Your task to perform on an android device: turn pop-ups on in chrome Image 0: 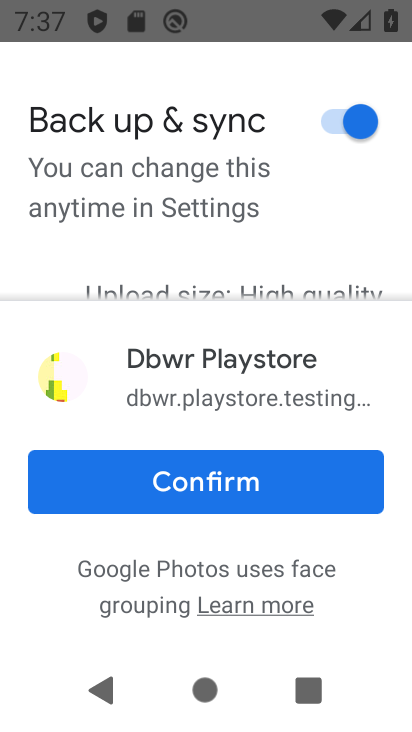
Step 0: press home button
Your task to perform on an android device: turn pop-ups on in chrome Image 1: 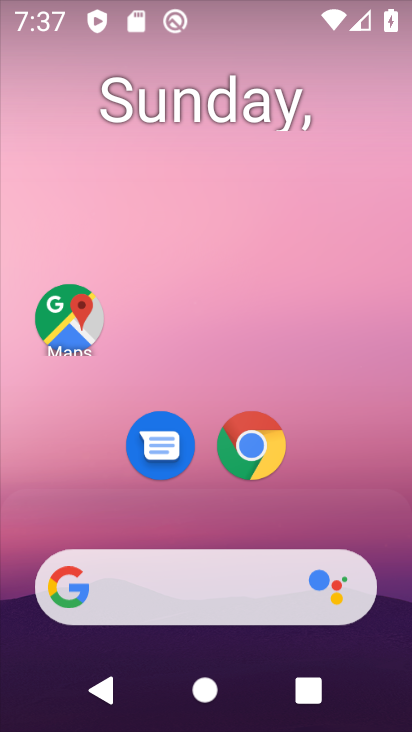
Step 1: click (257, 450)
Your task to perform on an android device: turn pop-ups on in chrome Image 2: 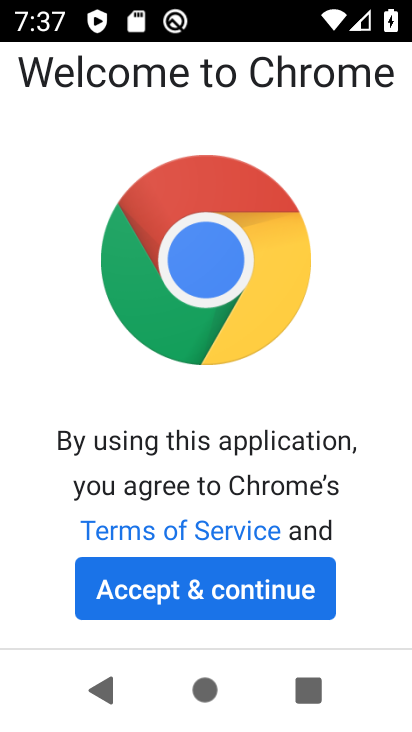
Step 2: click (259, 590)
Your task to perform on an android device: turn pop-ups on in chrome Image 3: 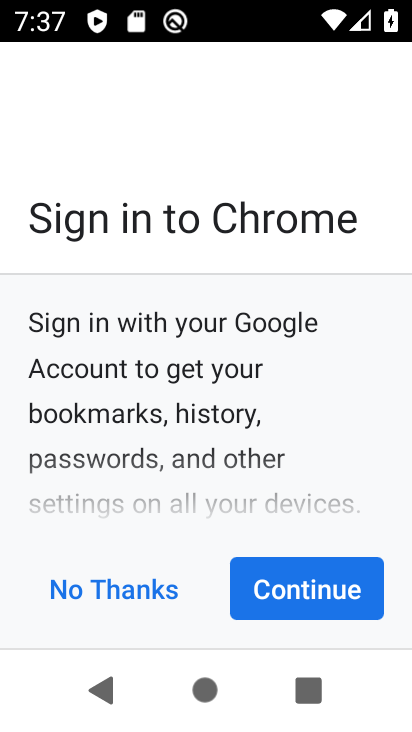
Step 3: click (282, 594)
Your task to perform on an android device: turn pop-ups on in chrome Image 4: 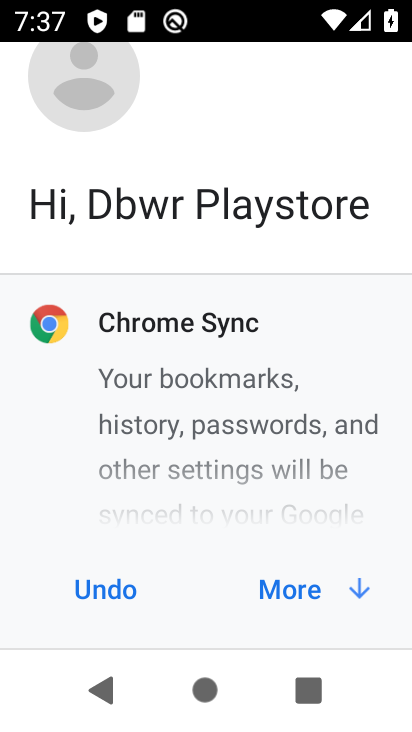
Step 4: click (300, 589)
Your task to perform on an android device: turn pop-ups on in chrome Image 5: 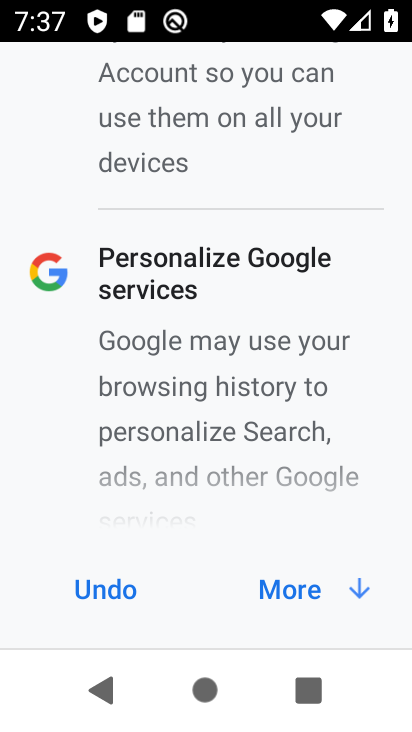
Step 5: click (300, 592)
Your task to perform on an android device: turn pop-ups on in chrome Image 6: 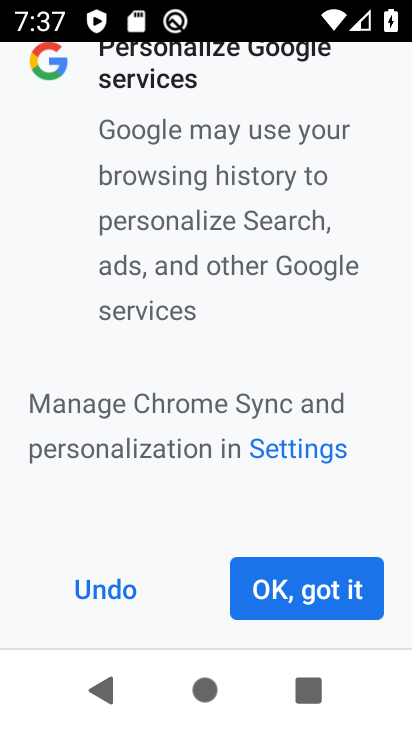
Step 6: click (300, 588)
Your task to perform on an android device: turn pop-ups on in chrome Image 7: 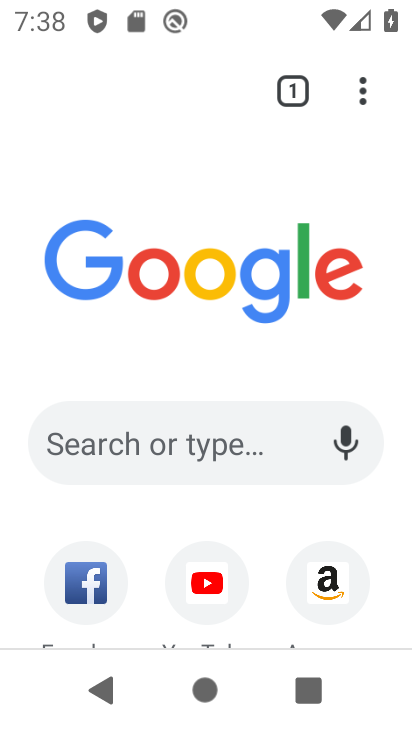
Step 7: click (369, 98)
Your task to perform on an android device: turn pop-ups on in chrome Image 8: 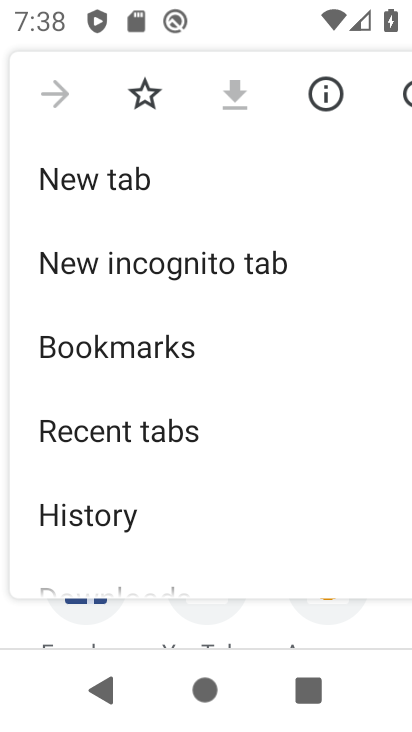
Step 8: drag from (209, 280) to (209, 178)
Your task to perform on an android device: turn pop-ups on in chrome Image 9: 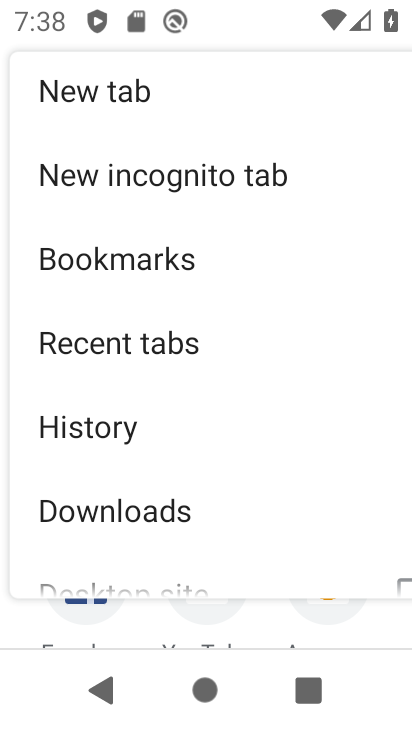
Step 9: drag from (169, 384) to (176, 112)
Your task to perform on an android device: turn pop-ups on in chrome Image 10: 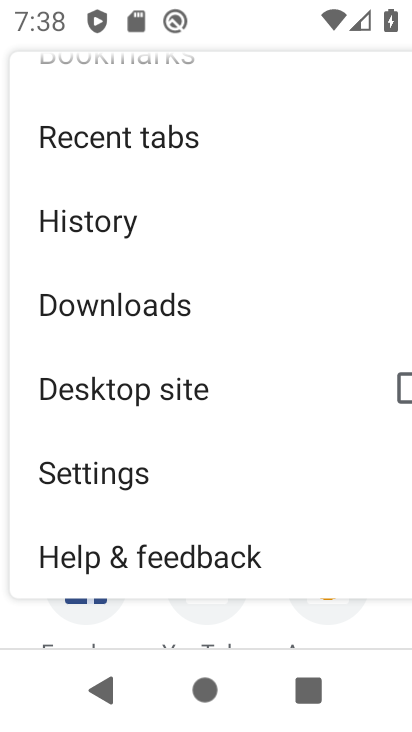
Step 10: click (127, 472)
Your task to perform on an android device: turn pop-ups on in chrome Image 11: 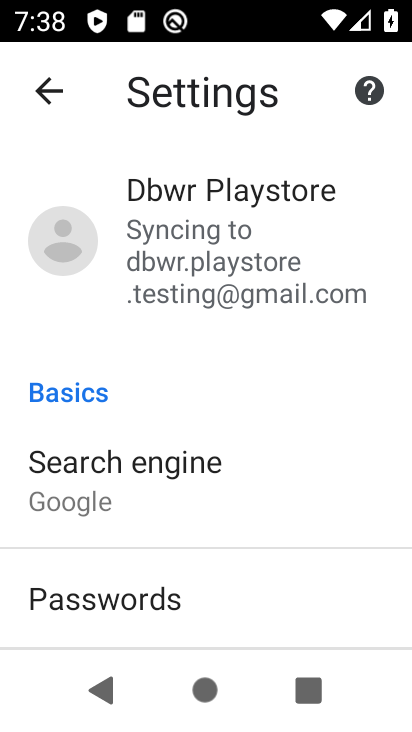
Step 11: drag from (137, 456) to (138, 316)
Your task to perform on an android device: turn pop-ups on in chrome Image 12: 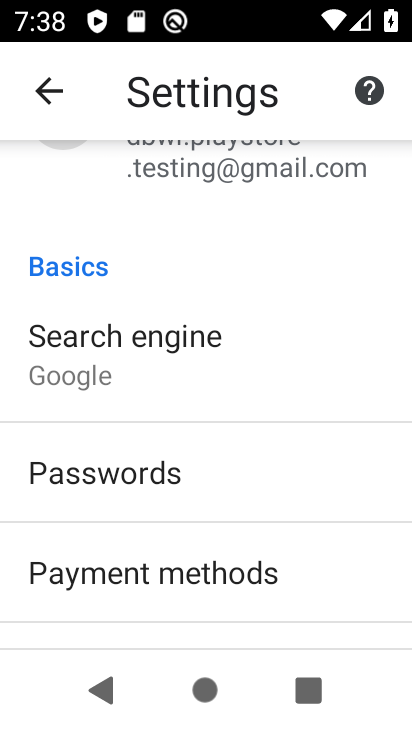
Step 12: drag from (163, 443) to (169, 250)
Your task to perform on an android device: turn pop-ups on in chrome Image 13: 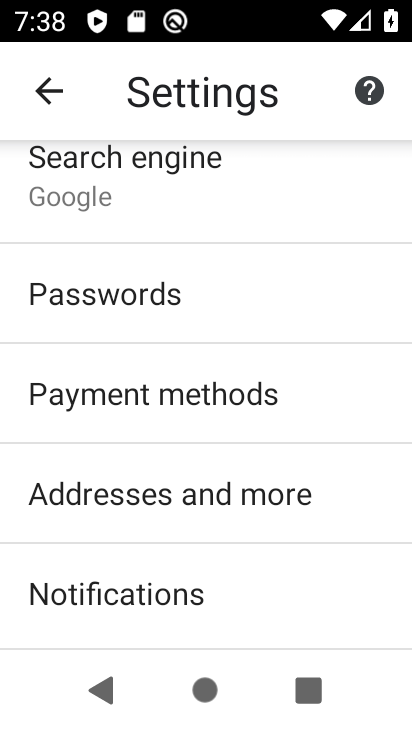
Step 13: drag from (164, 408) to (170, 198)
Your task to perform on an android device: turn pop-ups on in chrome Image 14: 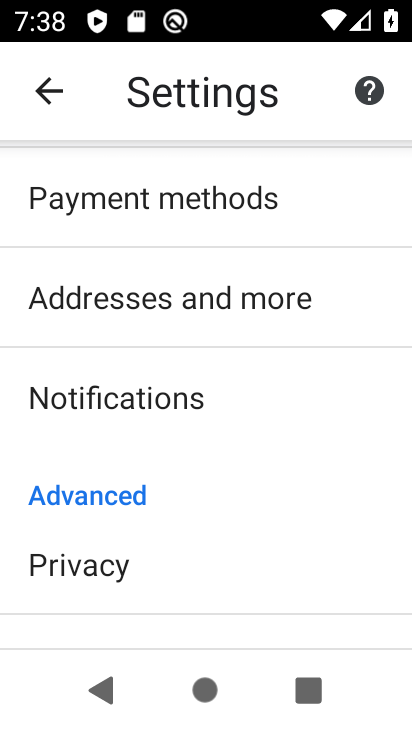
Step 14: drag from (151, 518) to (151, 456)
Your task to perform on an android device: turn pop-ups on in chrome Image 15: 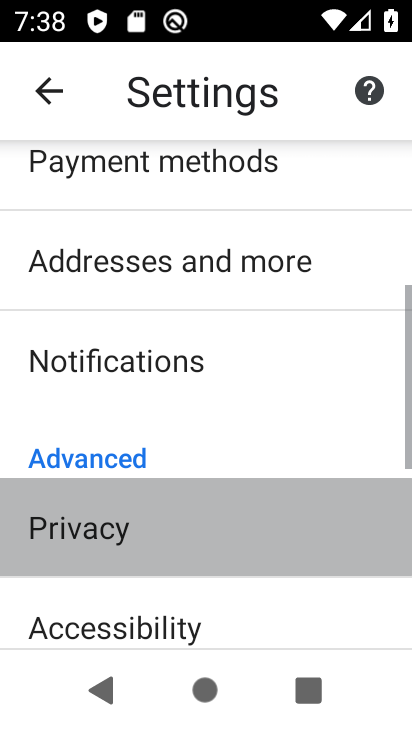
Step 15: click (151, 454)
Your task to perform on an android device: turn pop-ups on in chrome Image 16: 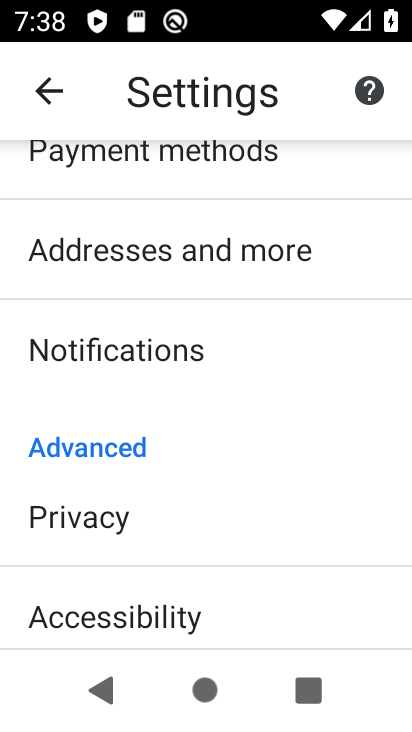
Step 16: drag from (146, 588) to (146, 329)
Your task to perform on an android device: turn pop-ups on in chrome Image 17: 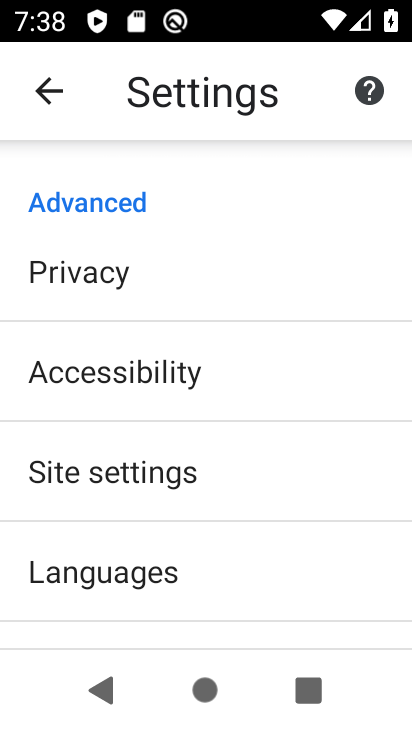
Step 17: click (132, 483)
Your task to perform on an android device: turn pop-ups on in chrome Image 18: 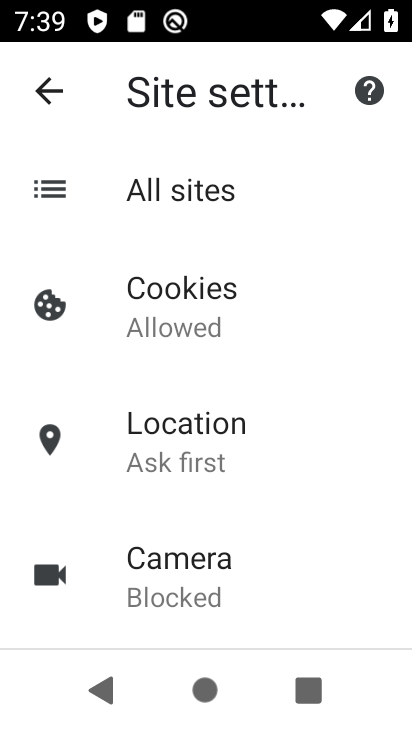
Step 18: drag from (182, 505) to (193, 248)
Your task to perform on an android device: turn pop-ups on in chrome Image 19: 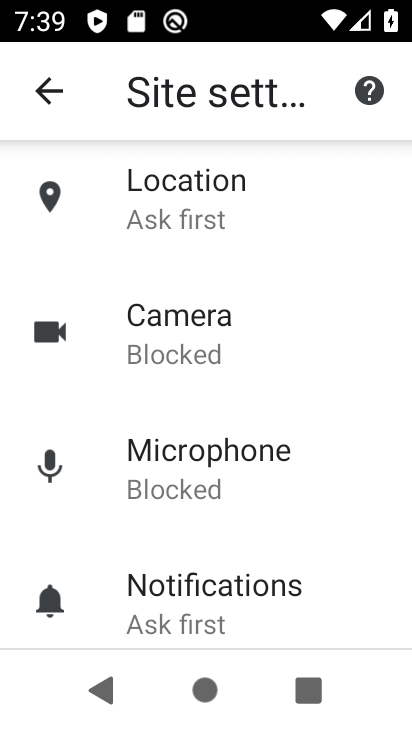
Step 19: drag from (207, 458) to (207, 326)
Your task to perform on an android device: turn pop-ups on in chrome Image 20: 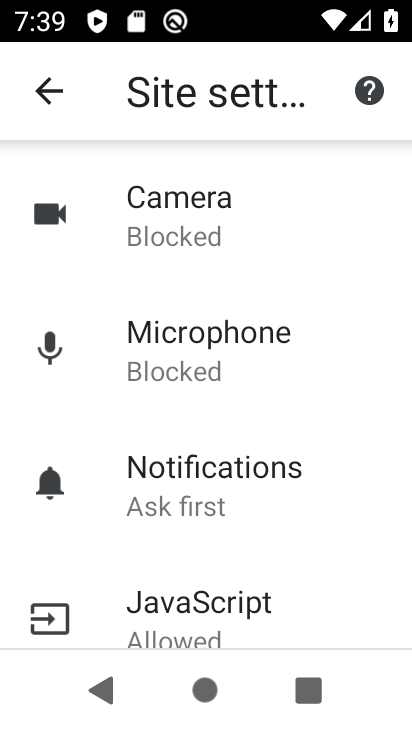
Step 20: drag from (162, 468) to (203, 270)
Your task to perform on an android device: turn pop-ups on in chrome Image 21: 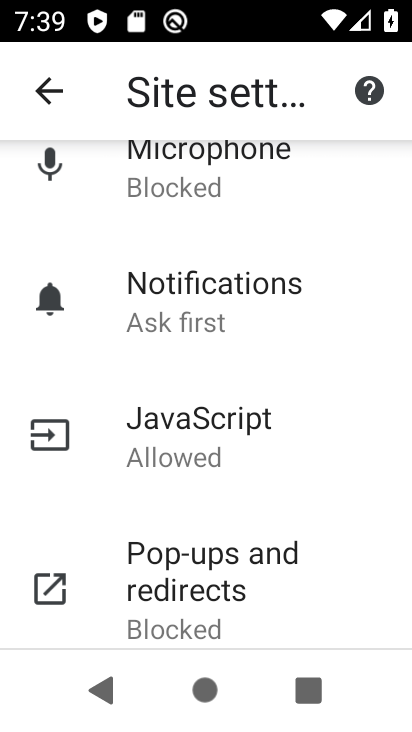
Step 21: click (197, 607)
Your task to perform on an android device: turn pop-ups on in chrome Image 22: 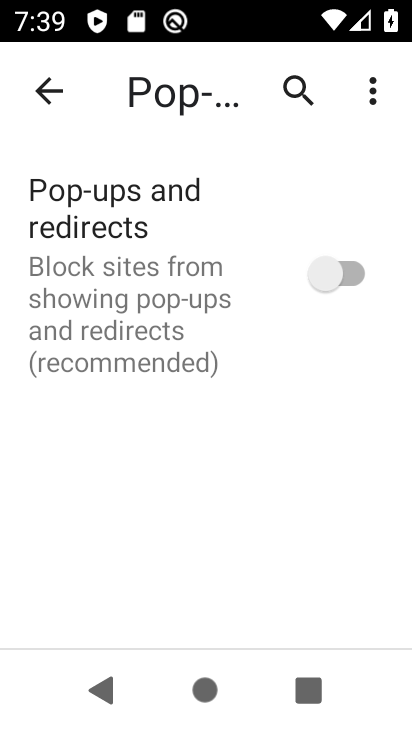
Step 22: click (343, 277)
Your task to perform on an android device: turn pop-ups on in chrome Image 23: 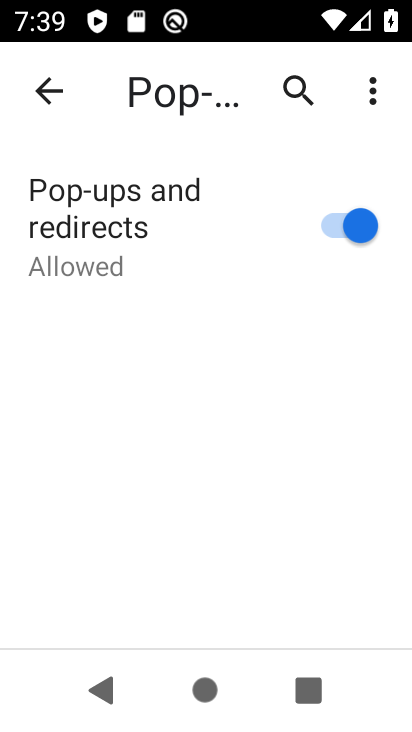
Step 23: task complete